Your task to perform on an android device: Open Google Maps and go to "Timeline" Image 0: 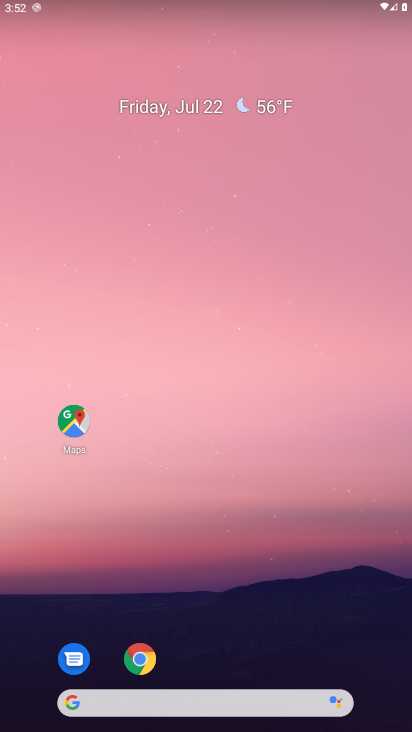
Step 0: drag from (235, 506) to (248, 350)
Your task to perform on an android device: Open Google Maps and go to "Timeline" Image 1: 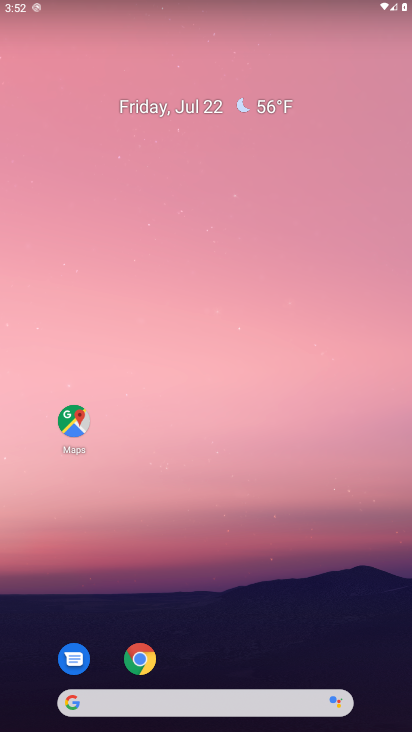
Step 1: drag from (258, 636) to (258, 291)
Your task to perform on an android device: Open Google Maps and go to "Timeline" Image 2: 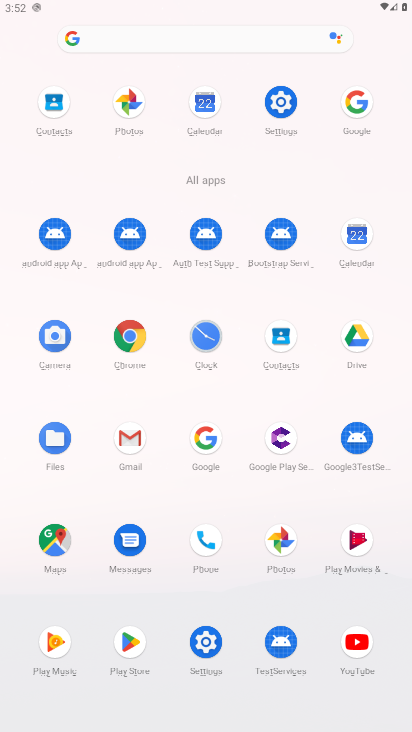
Step 2: click (55, 546)
Your task to perform on an android device: Open Google Maps and go to "Timeline" Image 3: 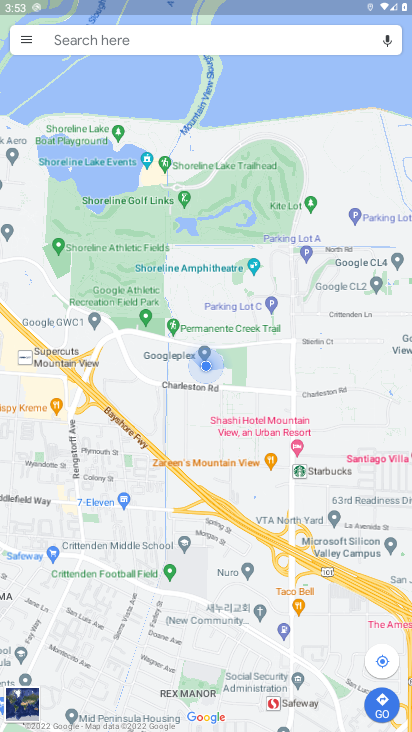
Step 3: click (34, 46)
Your task to perform on an android device: Open Google Maps and go to "Timeline" Image 4: 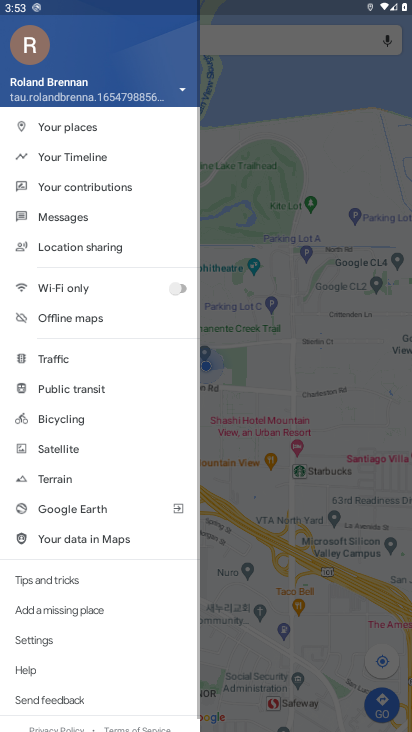
Step 4: click (65, 163)
Your task to perform on an android device: Open Google Maps and go to "Timeline" Image 5: 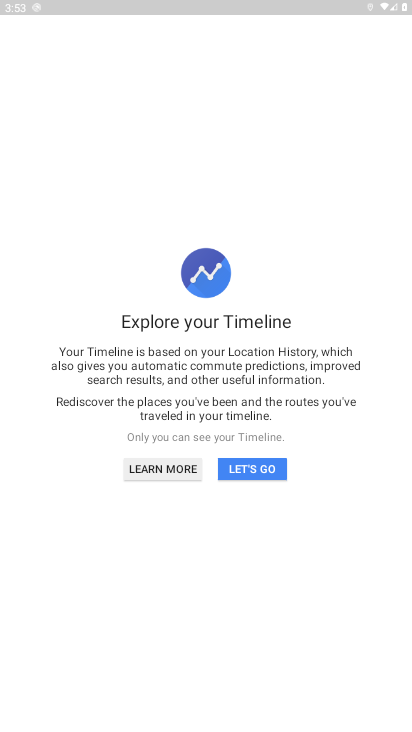
Step 5: click (266, 462)
Your task to perform on an android device: Open Google Maps and go to "Timeline" Image 6: 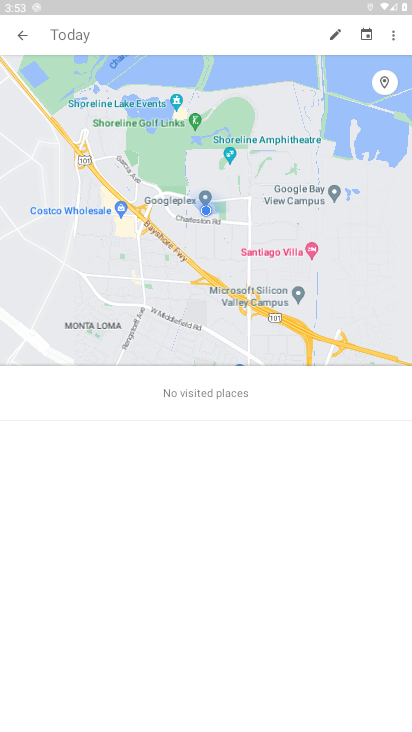
Step 6: task complete